Your task to perform on an android device: Open calendar and show me the first week of next month Image 0: 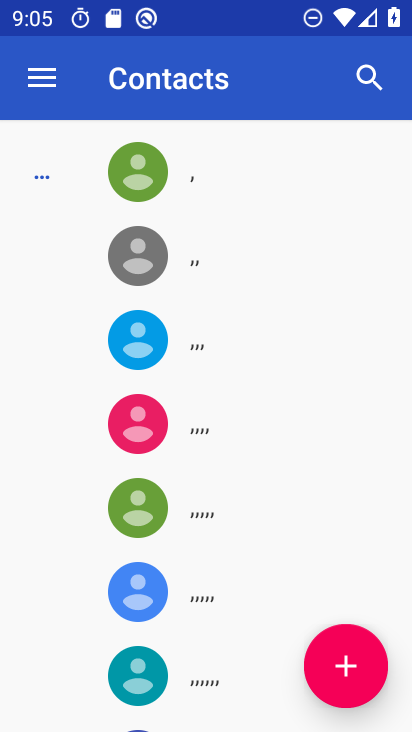
Step 0: press home button
Your task to perform on an android device: Open calendar and show me the first week of next month Image 1: 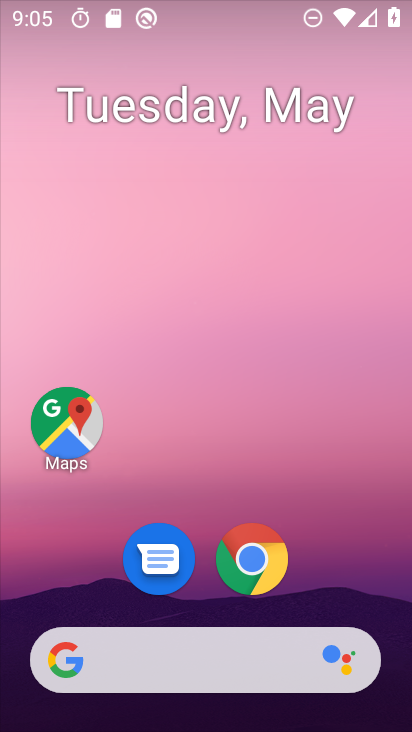
Step 1: drag from (389, 654) to (389, 521)
Your task to perform on an android device: Open calendar and show me the first week of next month Image 2: 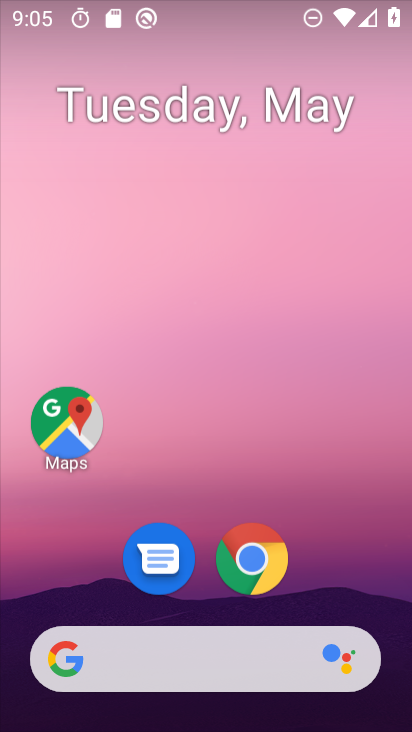
Step 2: click (282, 32)
Your task to perform on an android device: Open calendar and show me the first week of next month Image 3: 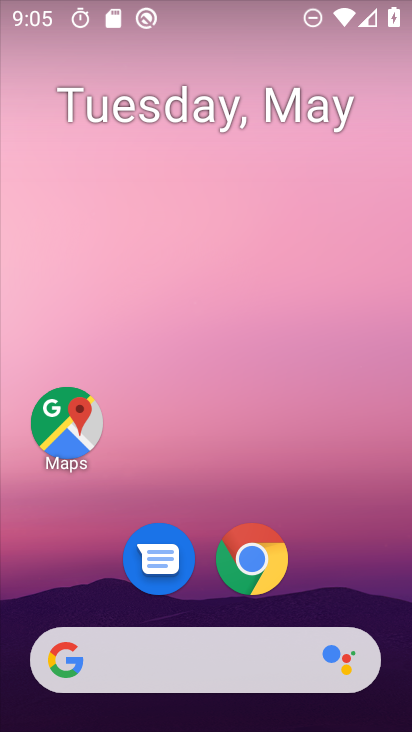
Step 3: drag from (371, 591) to (243, 16)
Your task to perform on an android device: Open calendar and show me the first week of next month Image 4: 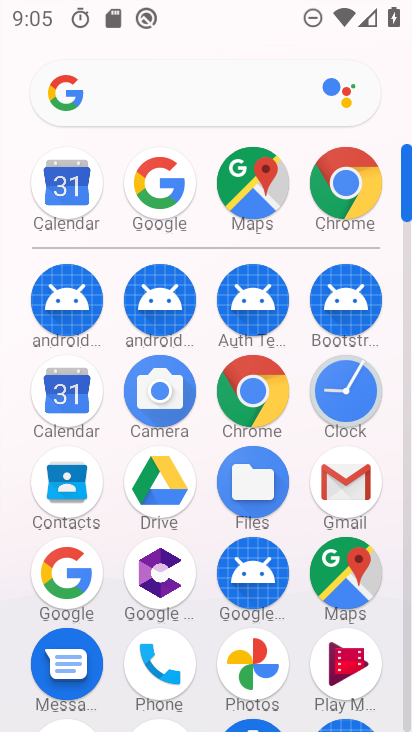
Step 4: click (52, 397)
Your task to perform on an android device: Open calendar and show me the first week of next month Image 5: 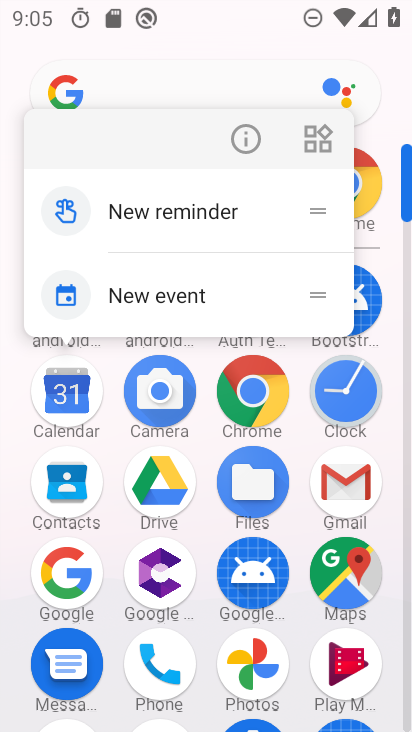
Step 5: click (52, 397)
Your task to perform on an android device: Open calendar and show me the first week of next month Image 6: 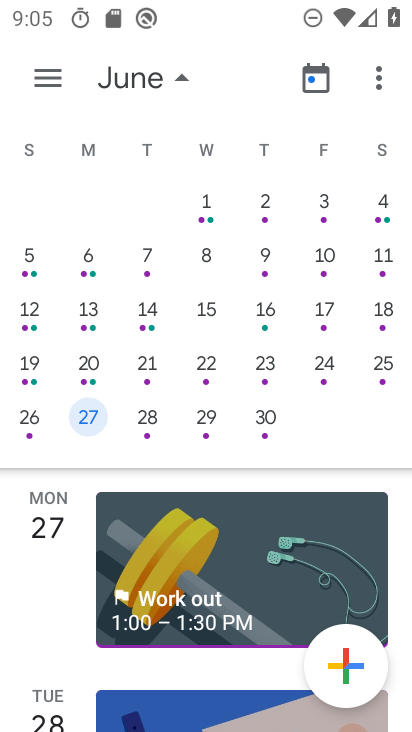
Step 6: drag from (377, 331) to (6, 323)
Your task to perform on an android device: Open calendar and show me the first week of next month Image 7: 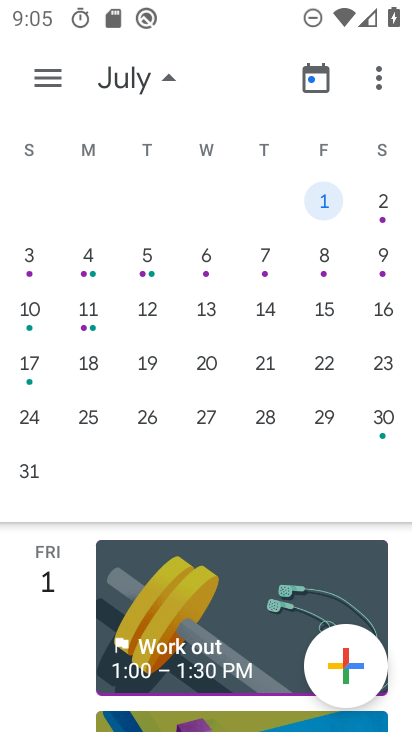
Step 7: click (149, 261)
Your task to perform on an android device: Open calendar and show me the first week of next month Image 8: 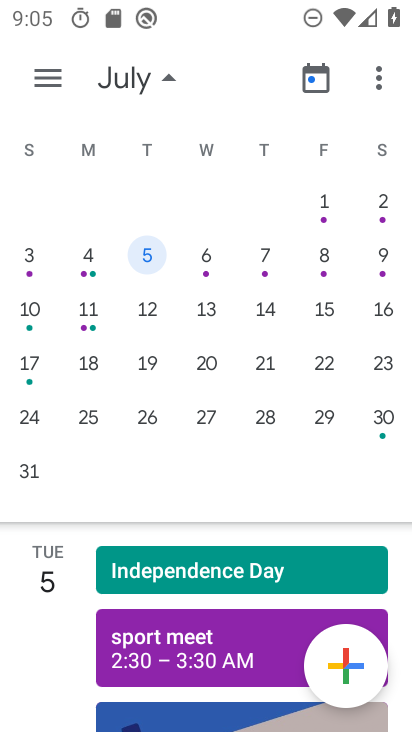
Step 8: task complete